Your task to perform on an android device: What's the weather going to be this weekend? Image 0: 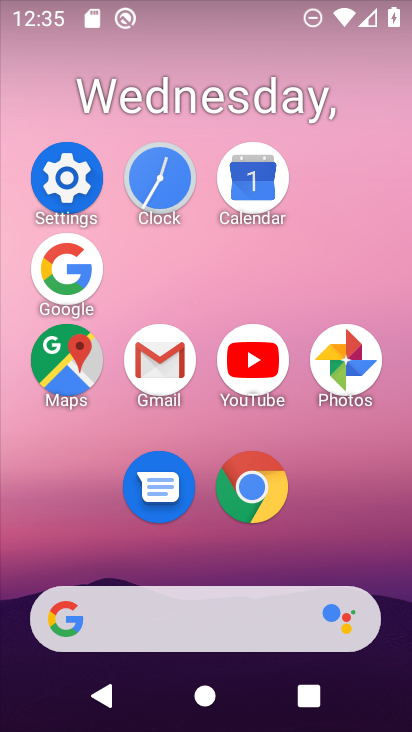
Step 0: click (68, 274)
Your task to perform on an android device: What's the weather going to be this weekend? Image 1: 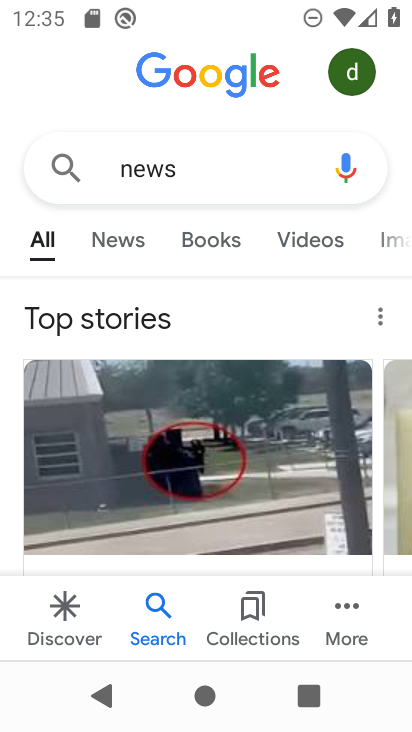
Step 1: click (211, 163)
Your task to perform on an android device: What's the weather going to be this weekend? Image 2: 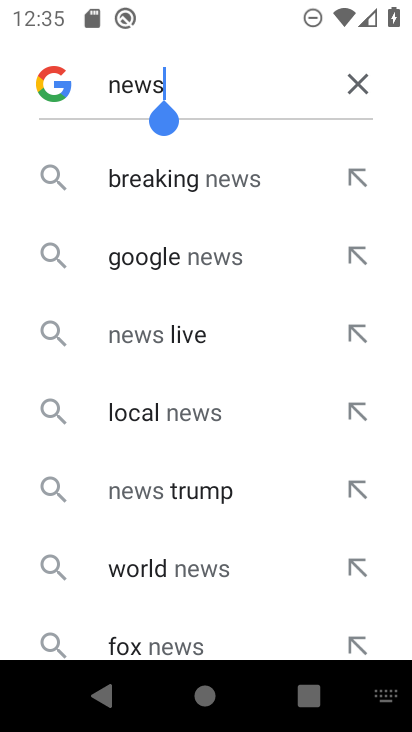
Step 2: click (282, 86)
Your task to perform on an android device: What's the weather going to be this weekend? Image 3: 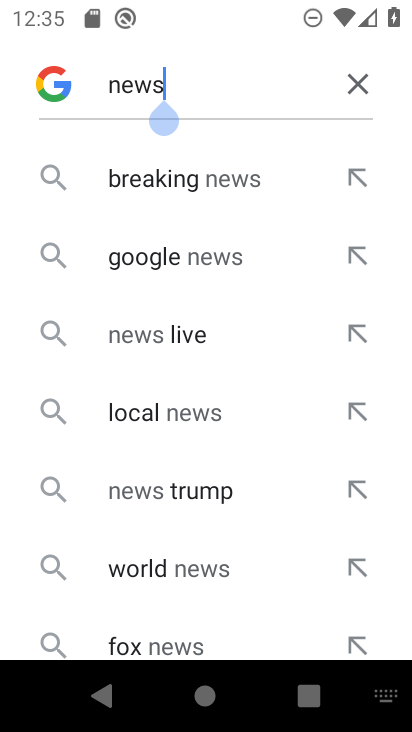
Step 3: click (358, 73)
Your task to perform on an android device: What's the weather going to be this weekend? Image 4: 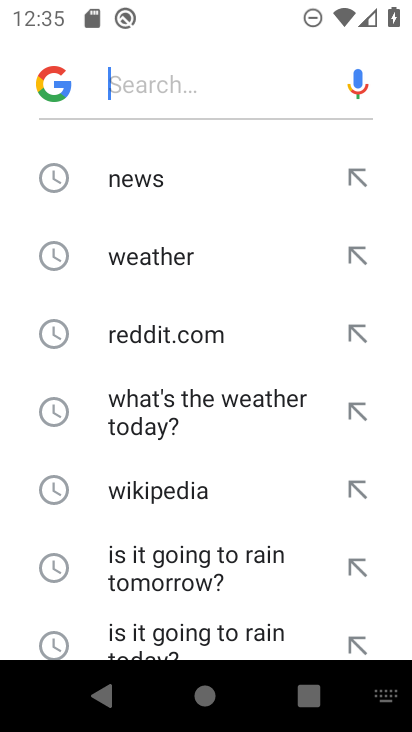
Step 4: click (115, 273)
Your task to perform on an android device: What's the weather going to be this weekend? Image 5: 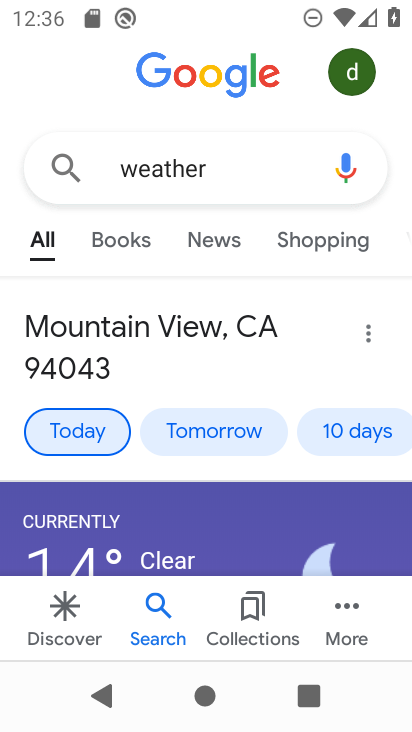
Step 5: click (348, 437)
Your task to perform on an android device: What's the weather going to be this weekend? Image 6: 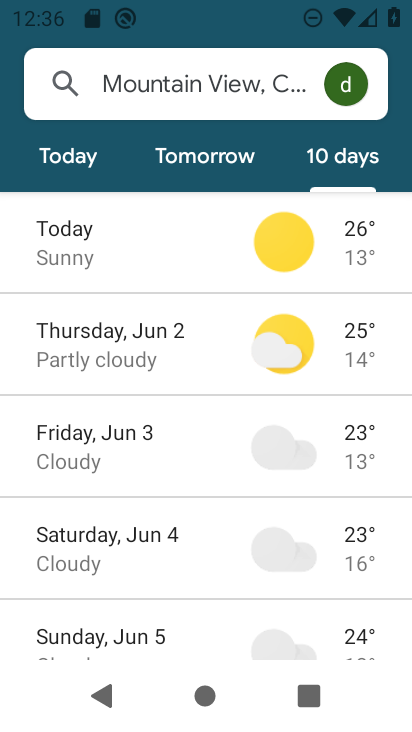
Step 6: click (147, 549)
Your task to perform on an android device: What's the weather going to be this weekend? Image 7: 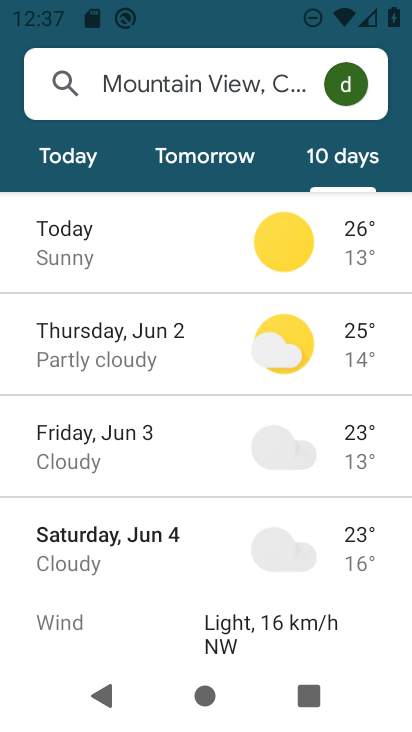
Step 7: task complete